Your task to perform on an android device: Open location settings Image 0: 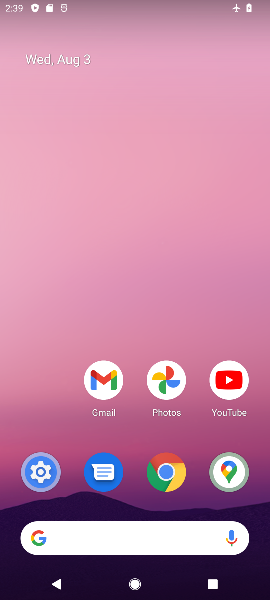
Step 0: drag from (193, 483) to (62, 31)
Your task to perform on an android device: Open location settings Image 1: 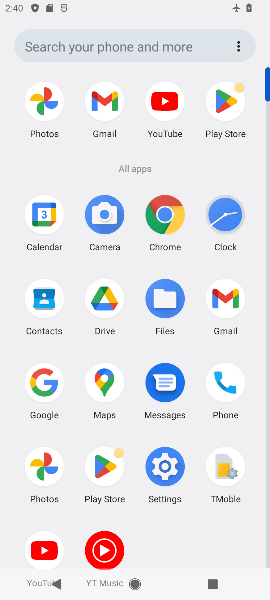
Step 1: click (162, 459)
Your task to perform on an android device: Open location settings Image 2: 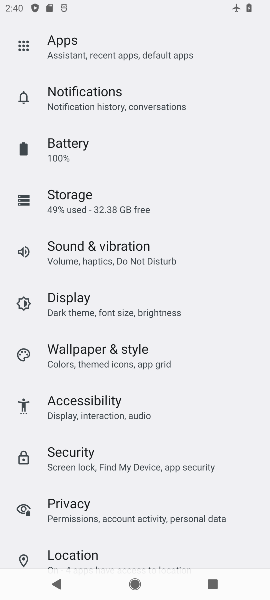
Step 2: click (82, 553)
Your task to perform on an android device: Open location settings Image 3: 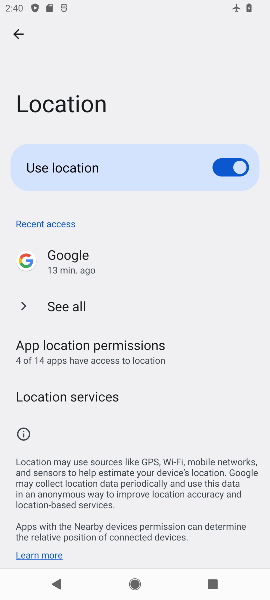
Step 3: task complete